Your task to perform on an android device: Go to Android settings Image 0: 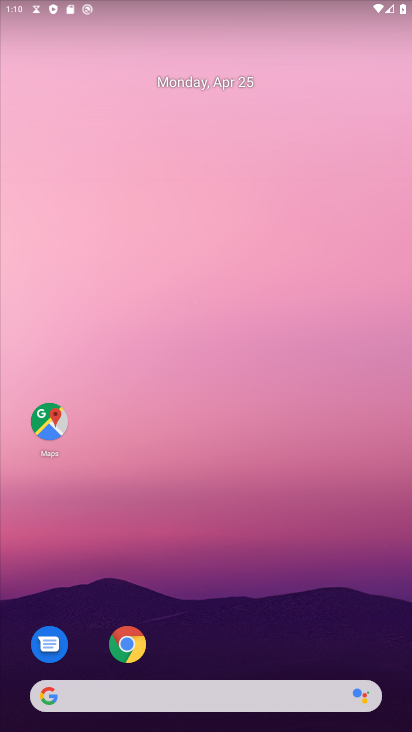
Step 0: drag from (345, 606) to (282, 25)
Your task to perform on an android device: Go to Android settings Image 1: 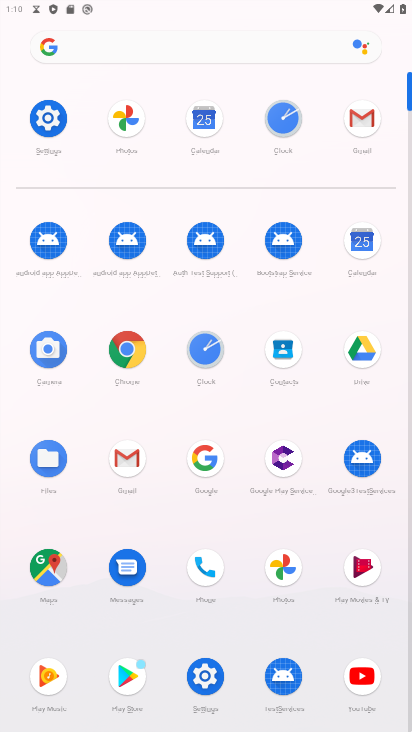
Step 1: click (44, 123)
Your task to perform on an android device: Go to Android settings Image 2: 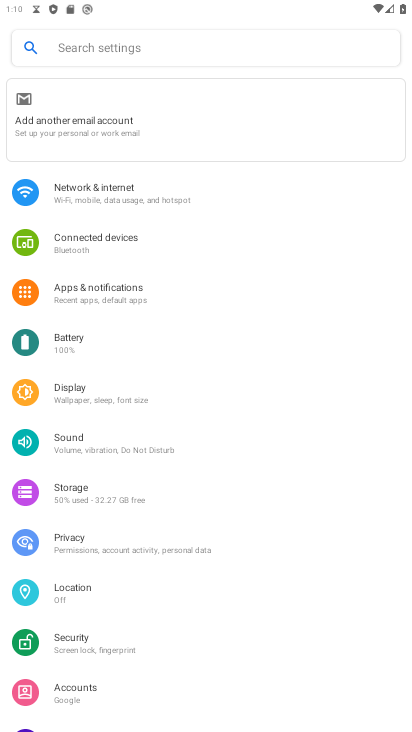
Step 2: task complete